Your task to perform on an android device: set an alarm Image 0: 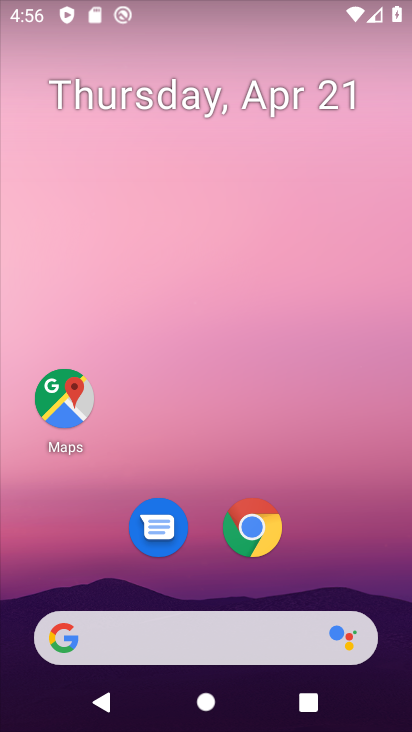
Step 0: drag from (340, 277) to (325, 187)
Your task to perform on an android device: set an alarm Image 1: 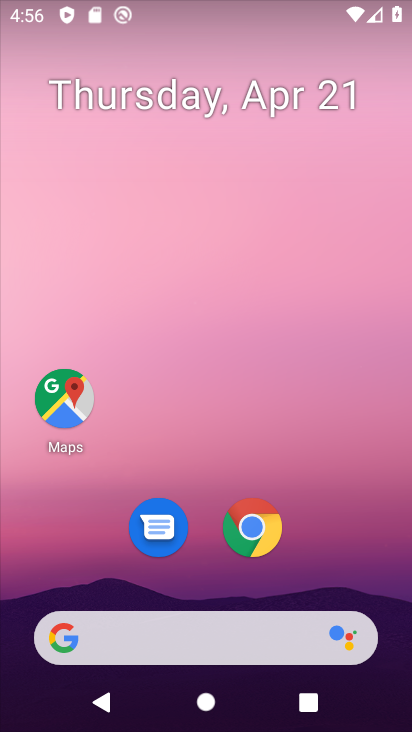
Step 1: drag from (378, 331) to (358, 174)
Your task to perform on an android device: set an alarm Image 2: 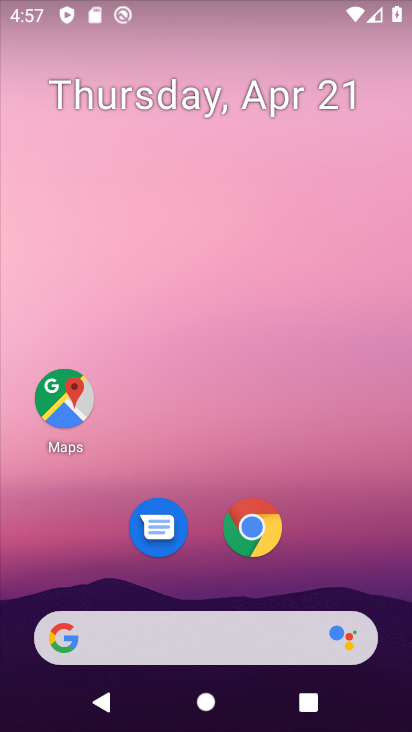
Step 2: drag from (388, 626) to (339, 248)
Your task to perform on an android device: set an alarm Image 3: 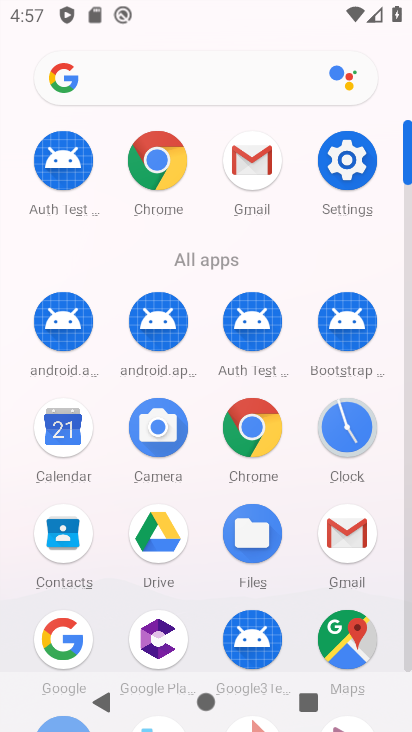
Step 3: click (351, 161)
Your task to perform on an android device: set an alarm Image 4: 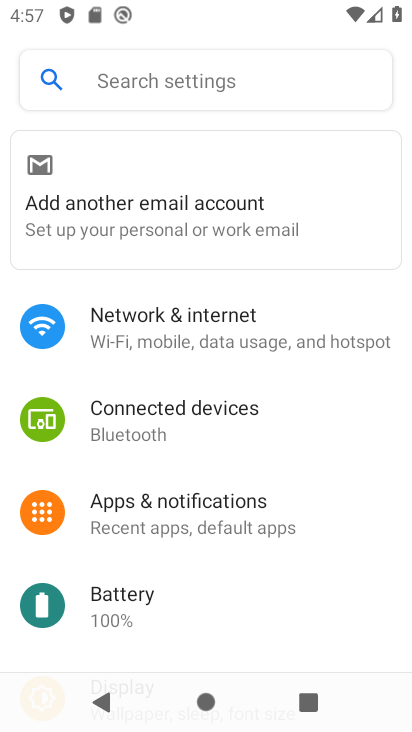
Step 4: press home button
Your task to perform on an android device: set an alarm Image 5: 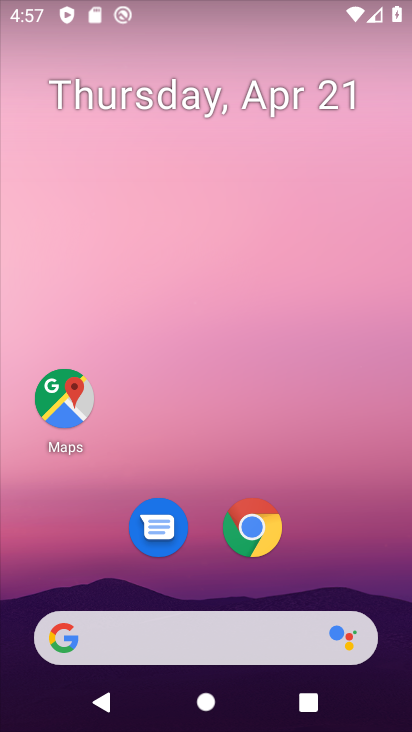
Step 5: drag from (382, 598) to (395, 72)
Your task to perform on an android device: set an alarm Image 6: 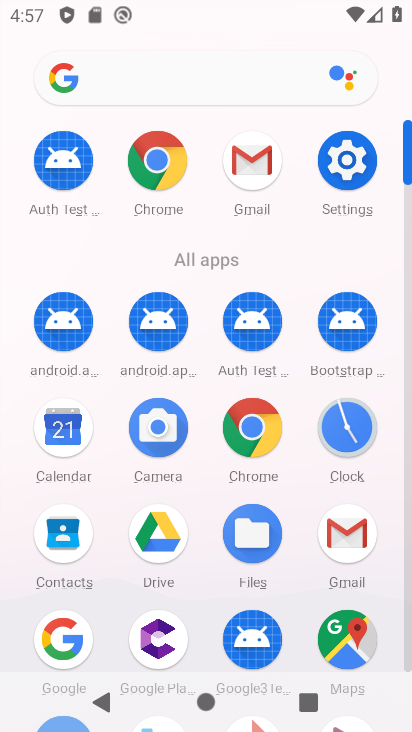
Step 6: click (336, 428)
Your task to perform on an android device: set an alarm Image 7: 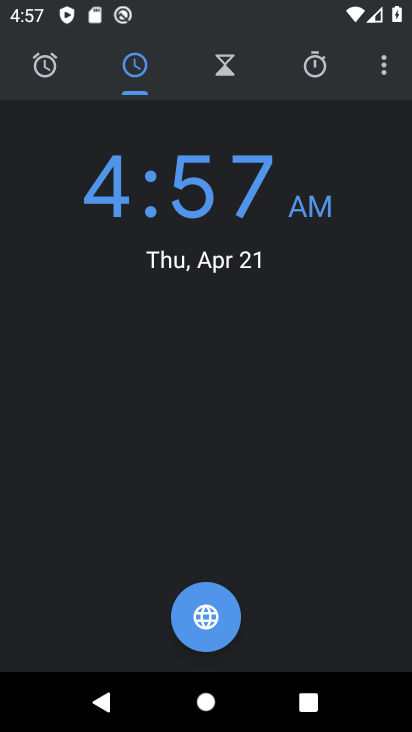
Step 7: click (312, 66)
Your task to perform on an android device: set an alarm Image 8: 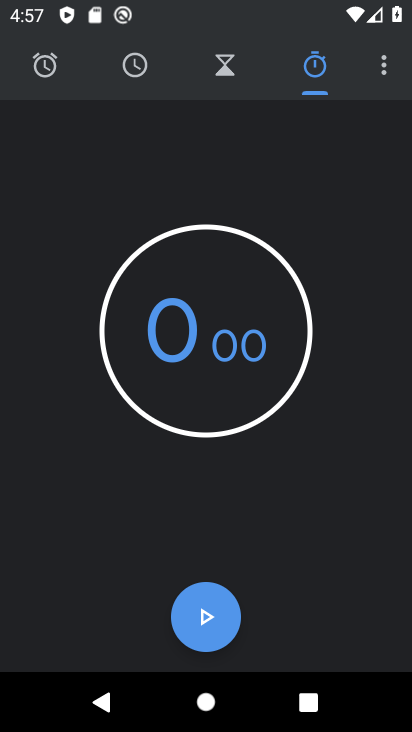
Step 8: click (41, 69)
Your task to perform on an android device: set an alarm Image 9: 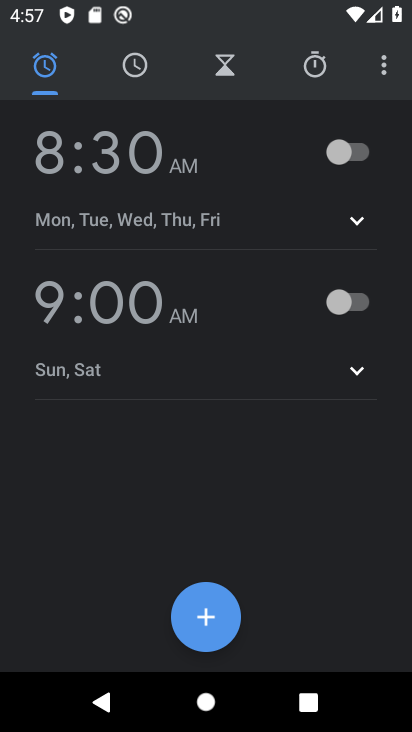
Step 9: click (356, 300)
Your task to perform on an android device: set an alarm Image 10: 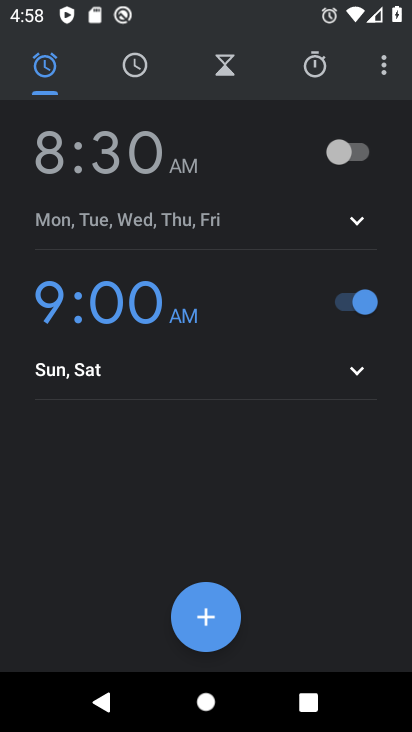
Step 10: task complete